Your task to perform on an android device: Clear the shopping cart on costco. Add usb-c to usb-b to the cart on costco Image 0: 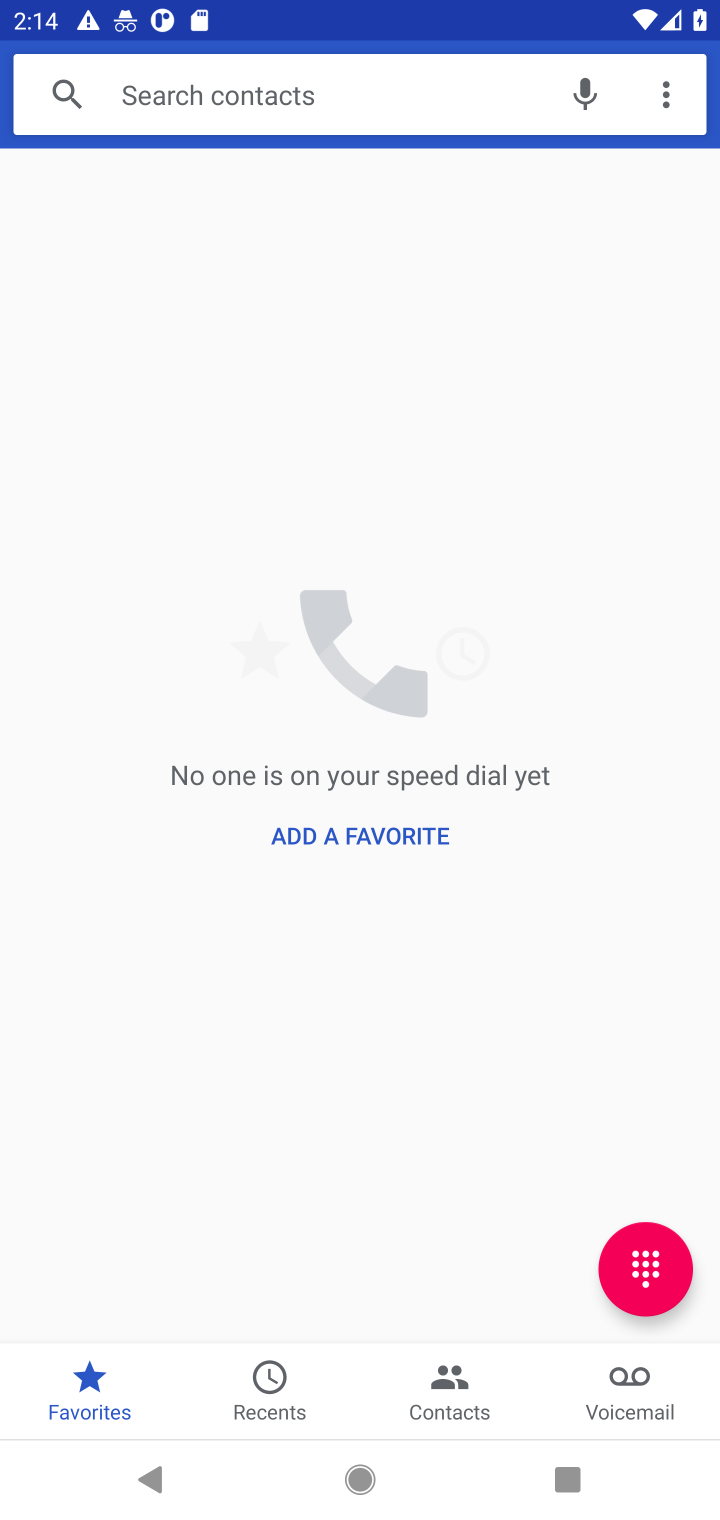
Step 0: press home button
Your task to perform on an android device: Clear the shopping cart on costco. Add usb-c to usb-b to the cart on costco Image 1: 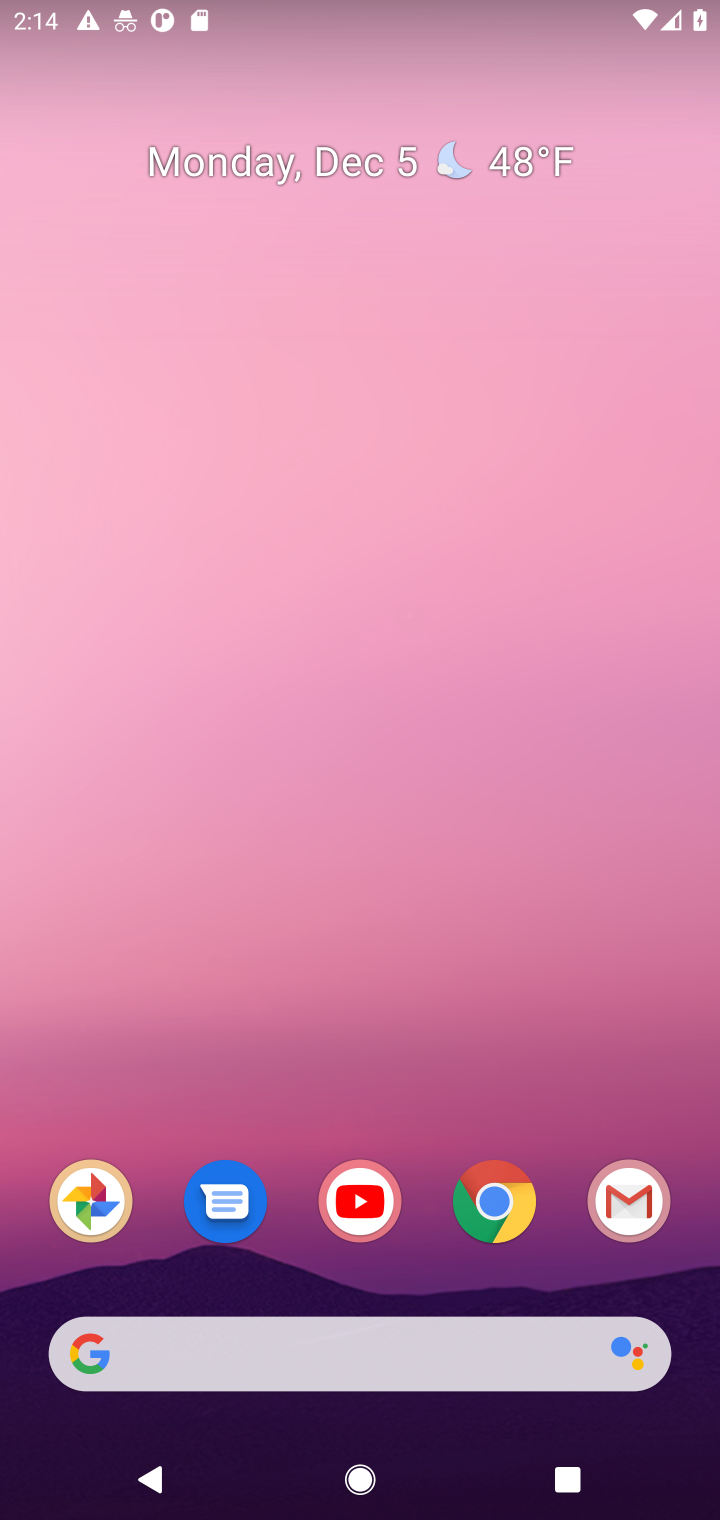
Step 1: click (507, 1194)
Your task to perform on an android device: Clear the shopping cart on costco. Add usb-c to usb-b to the cart on costco Image 2: 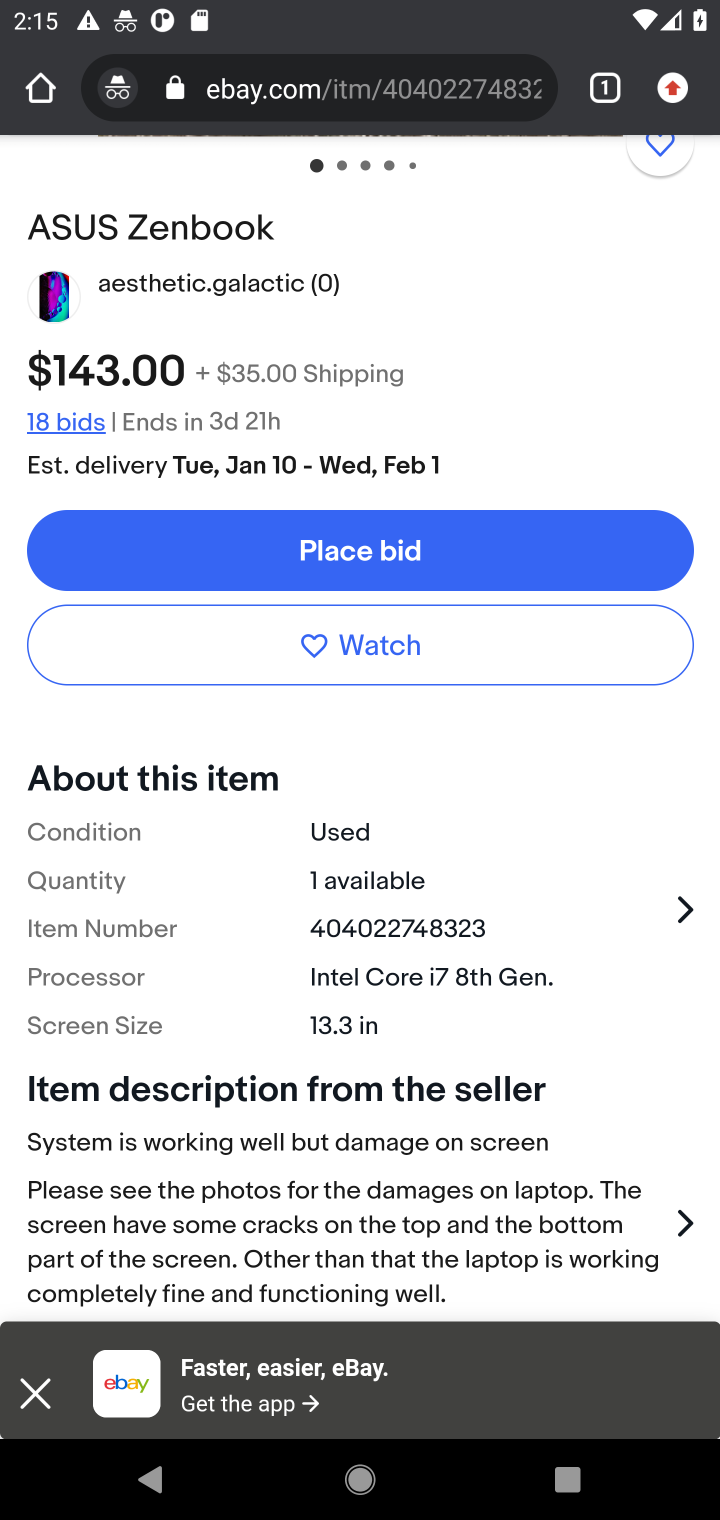
Step 2: task complete